Your task to perform on an android device: Open Yahoo.com Image 0: 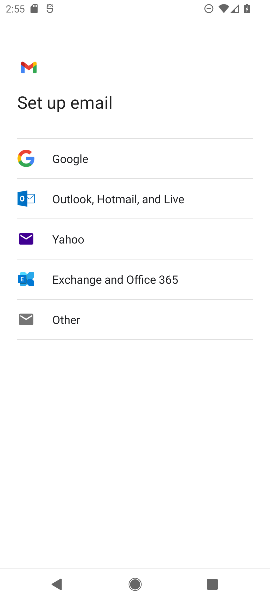
Step 0: press home button
Your task to perform on an android device: Open Yahoo.com Image 1: 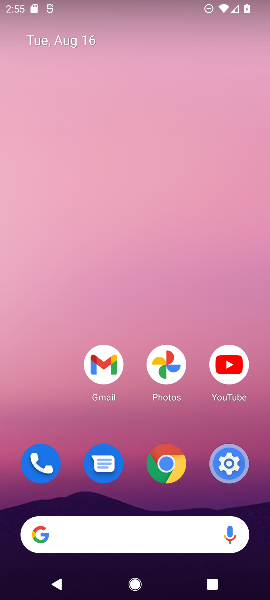
Step 1: click (163, 459)
Your task to perform on an android device: Open Yahoo.com Image 2: 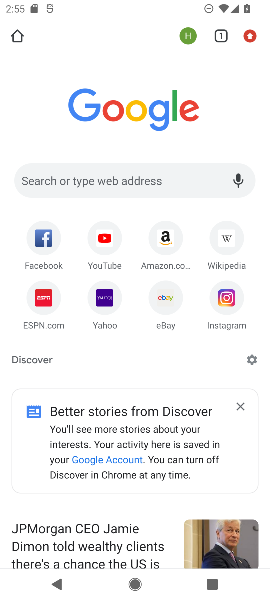
Step 2: click (96, 303)
Your task to perform on an android device: Open Yahoo.com Image 3: 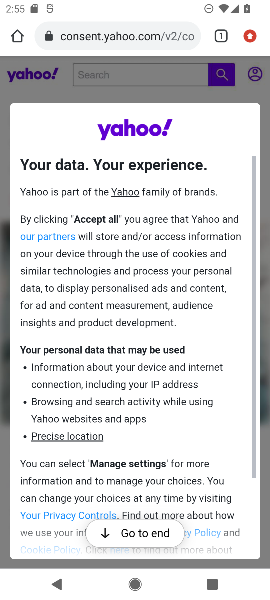
Step 3: click (151, 531)
Your task to perform on an android device: Open Yahoo.com Image 4: 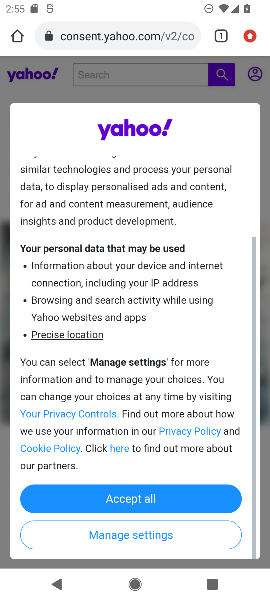
Step 4: task complete